Your task to perform on an android device: Open Youtube and go to "Your channel" Image 0: 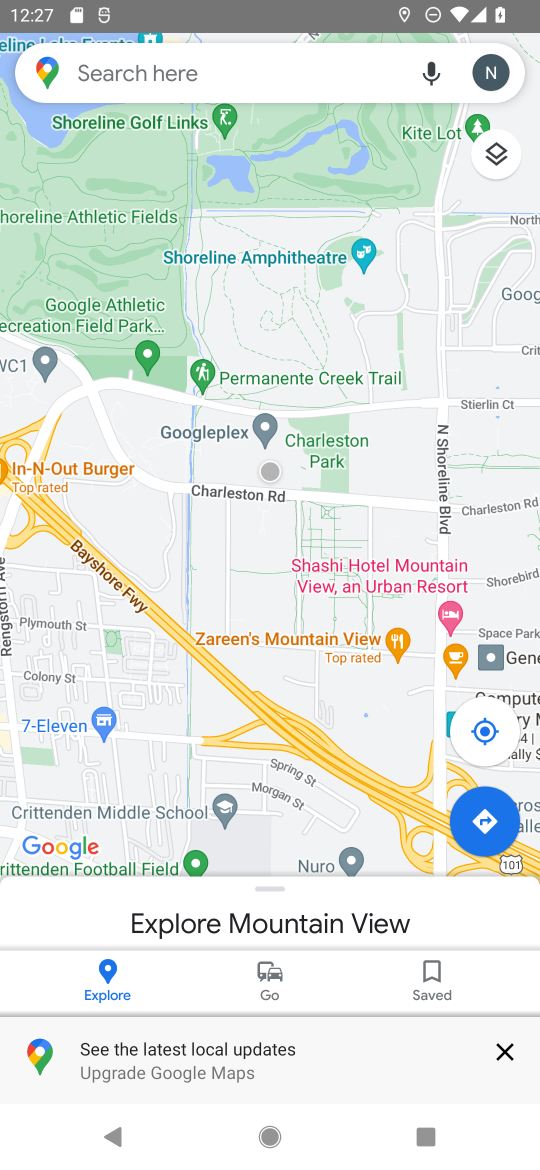
Step 0: press home button
Your task to perform on an android device: Open Youtube and go to "Your channel" Image 1: 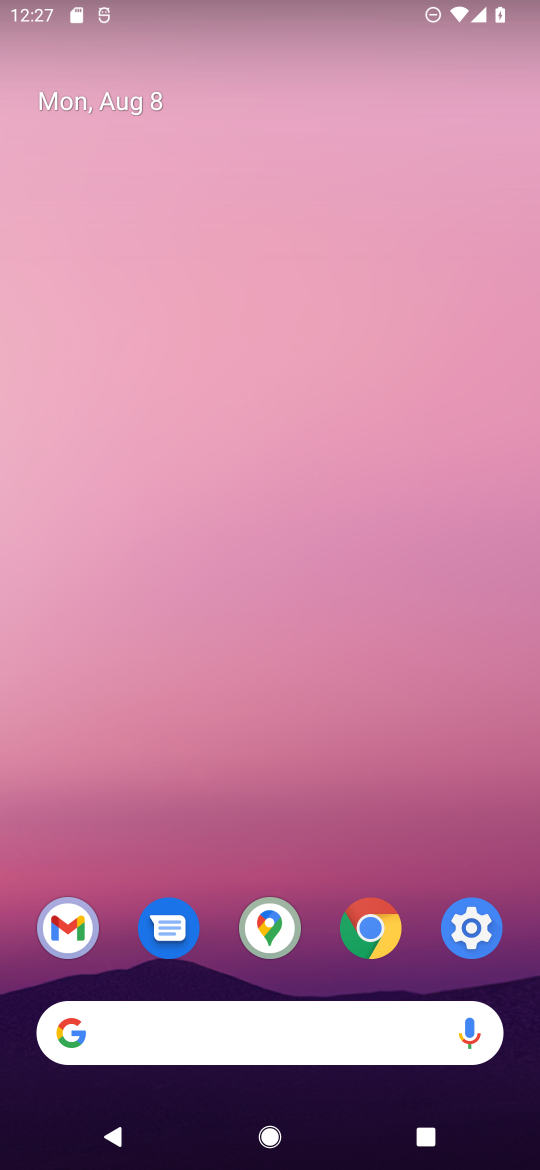
Step 1: drag from (364, 1061) to (316, 273)
Your task to perform on an android device: Open Youtube and go to "Your channel" Image 2: 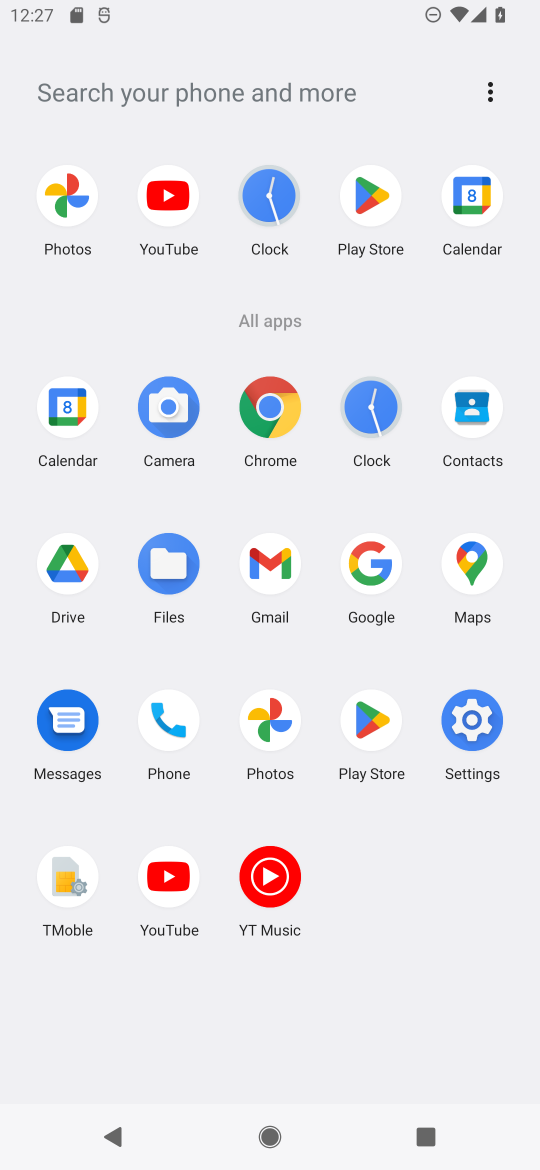
Step 2: click (167, 197)
Your task to perform on an android device: Open Youtube and go to "Your channel" Image 3: 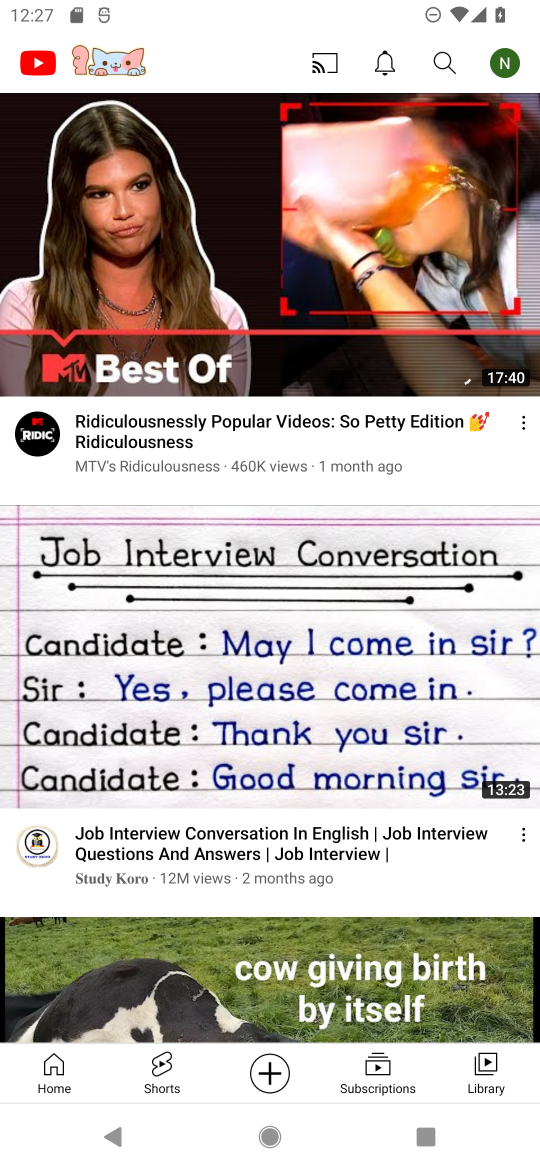
Step 3: click (445, 70)
Your task to perform on an android device: Open Youtube and go to "Your channel" Image 4: 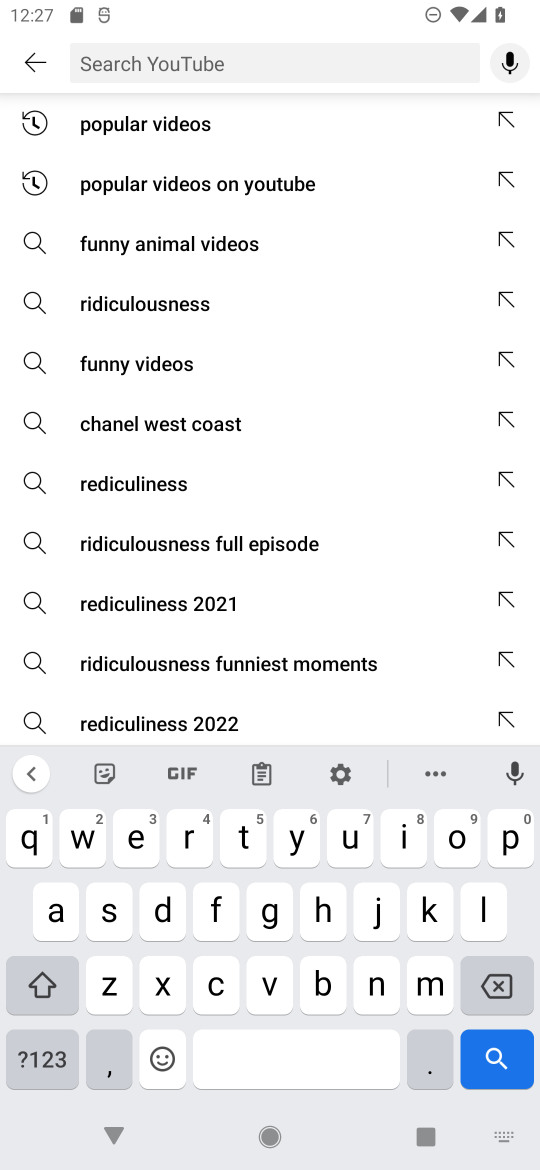
Step 4: click (15, 63)
Your task to perform on an android device: Open Youtube and go to "Your channel" Image 5: 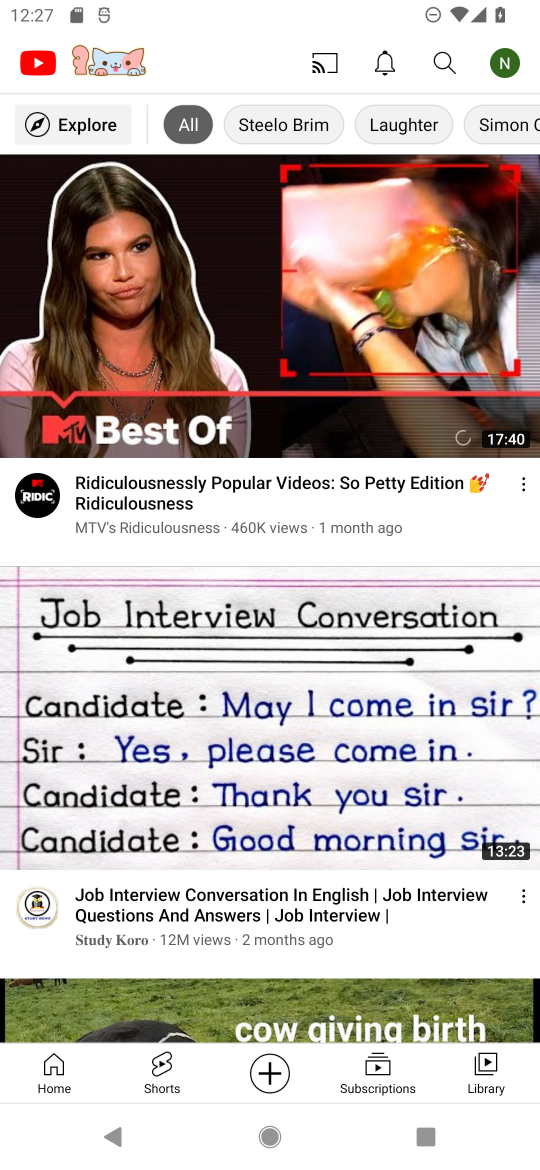
Step 5: click (497, 63)
Your task to perform on an android device: Open Youtube and go to "Your channel" Image 6: 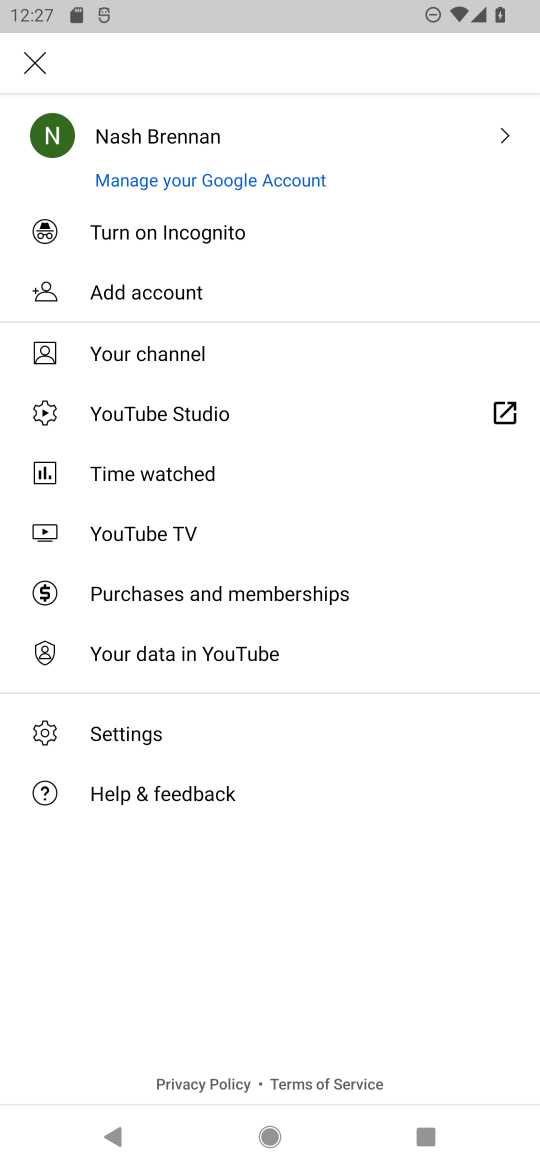
Step 6: click (171, 354)
Your task to perform on an android device: Open Youtube and go to "Your channel" Image 7: 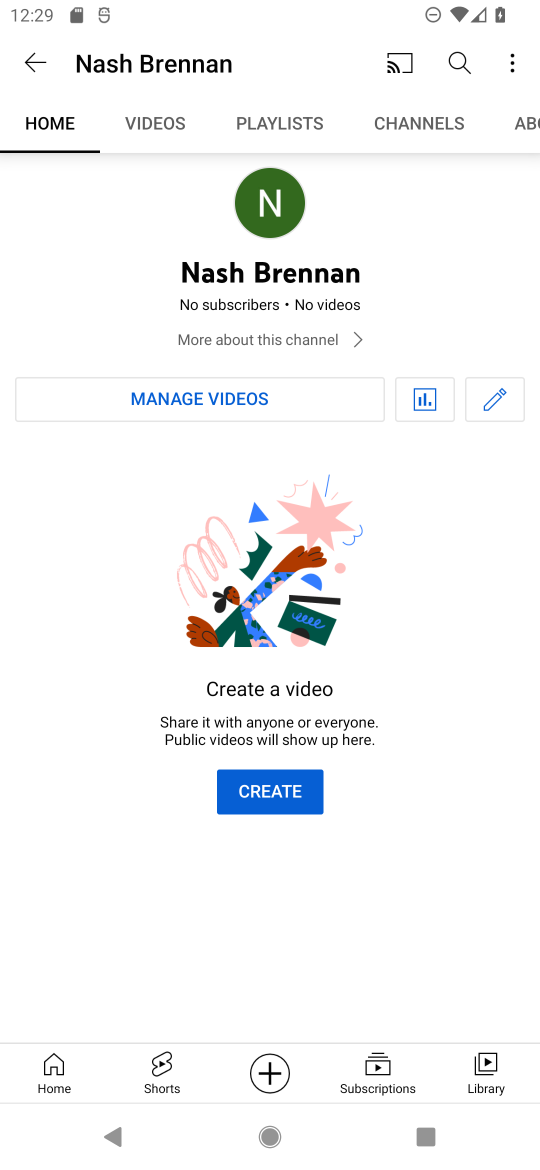
Step 7: task complete